Your task to perform on an android device: change the clock display to digital Image 0: 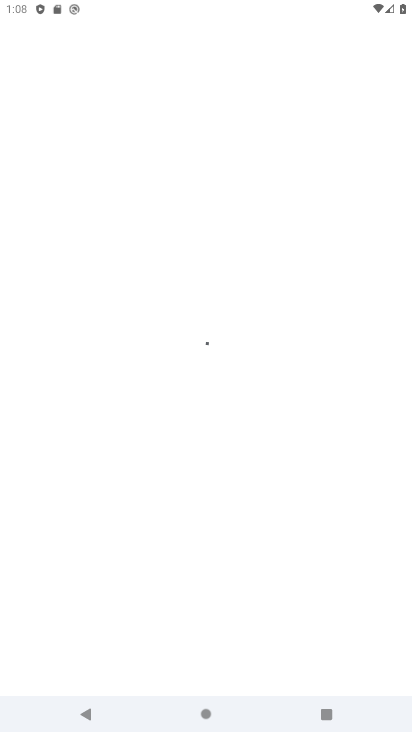
Step 0: press home button
Your task to perform on an android device: change the clock display to digital Image 1: 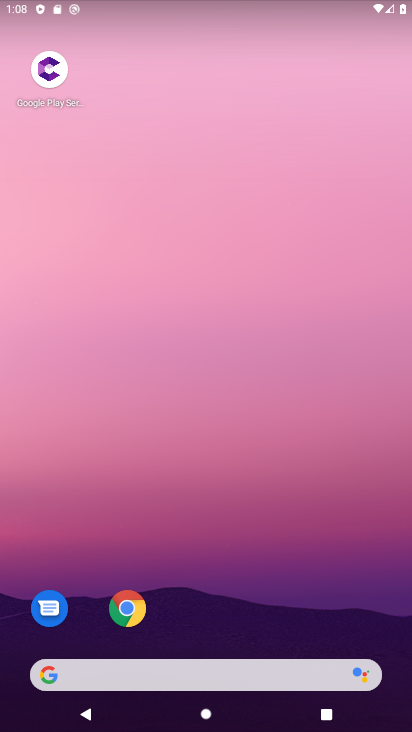
Step 1: drag from (245, 715) to (211, 89)
Your task to perform on an android device: change the clock display to digital Image 2: 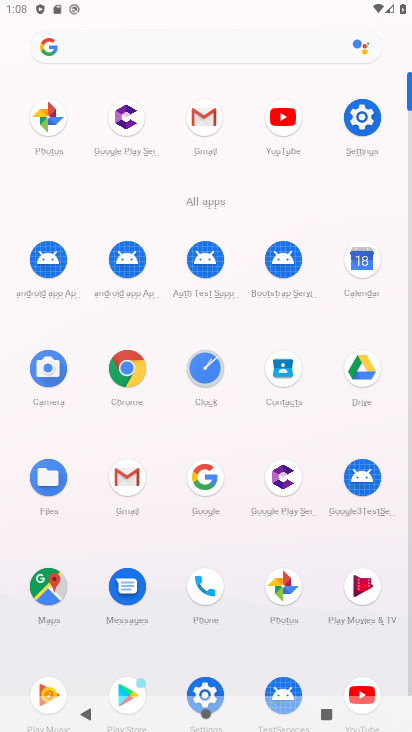
Step 2: click (197, 363)
Your task to perform on an android device: change the clock display to digital Image 3: 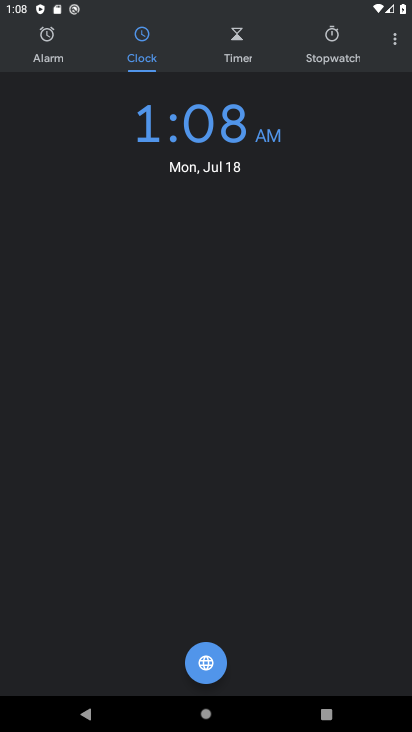
Step 3: click (397, 37)
Your task to perform on an android device: change the clock display to digital Image 4: 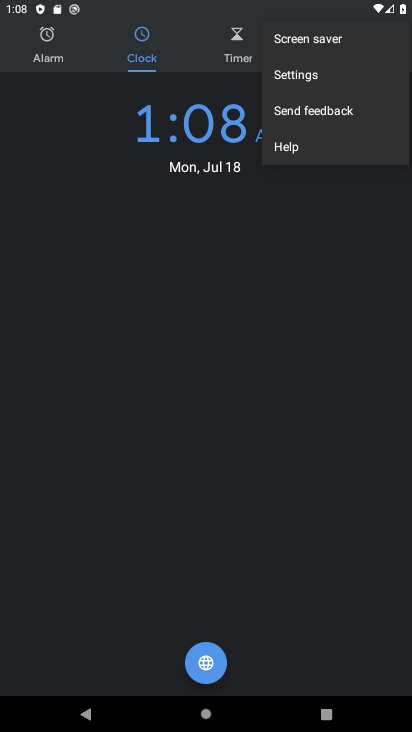
Step 4: click (302, 68)
Your task to perform on an android device: change the clock display to digital Image 5: 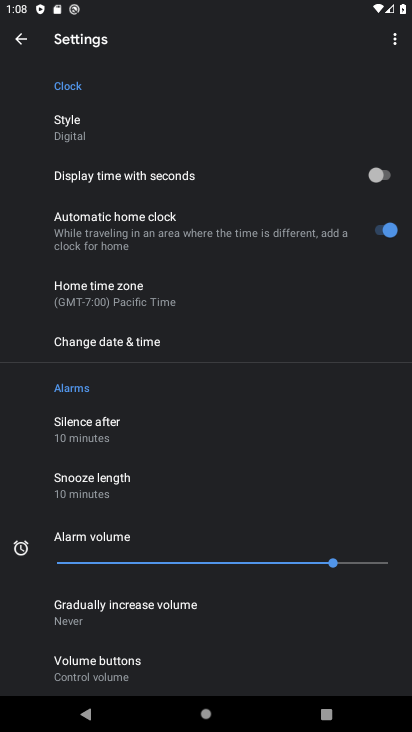
Step 5: task complete